Your task to perform on an android device: turn pop-ups off in chrome Image 0: 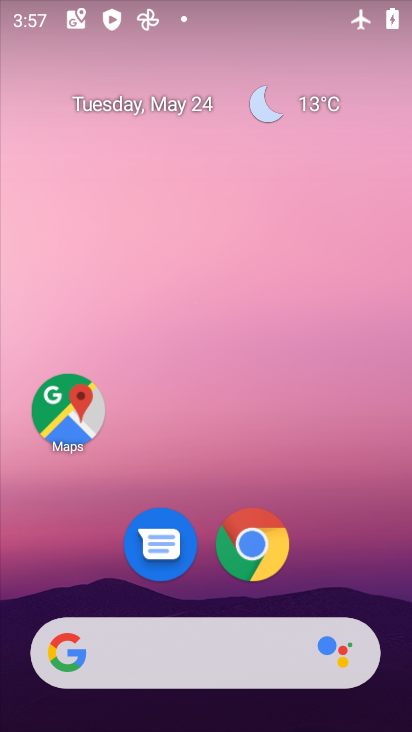
Step 0: drag from (387, 534) to (289, 59)
Your task to perform on an android device: turn pop-ups off in chrome Image 1: 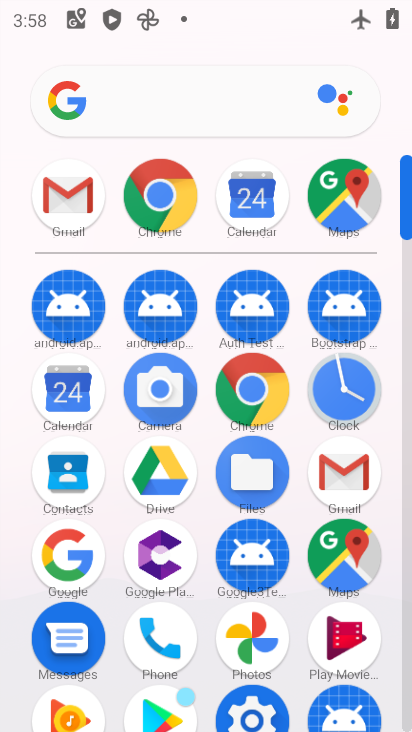
Step 1: click (162, 197)
Your task to perform on an android device: turn pop-ups off in chrome Image 2: 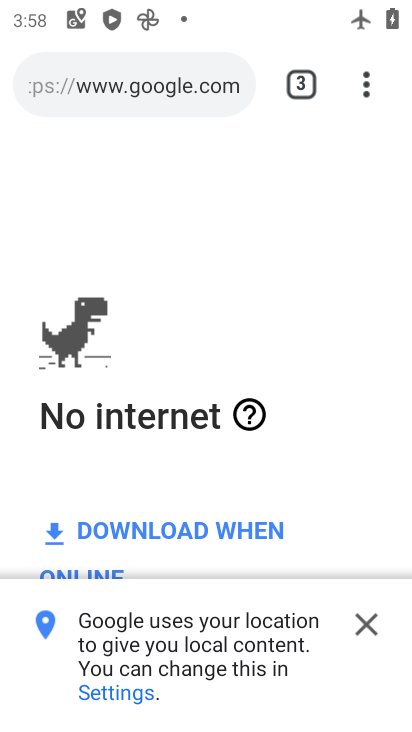
Step 2: drag from (374, 103) to (67, 598)
Your task to perform on an android device: turn pop-ups off in chrome Image 3: 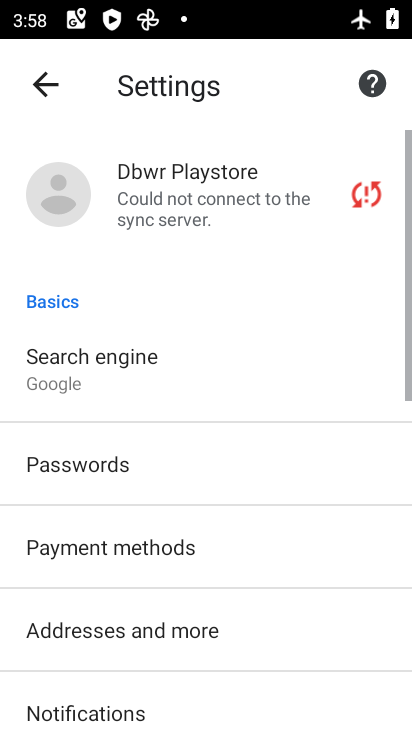
Step 3: drag from (214, 597) to (214, 216)
Your task to perform on an android device: turn pop-ups off in chrome Image 4: 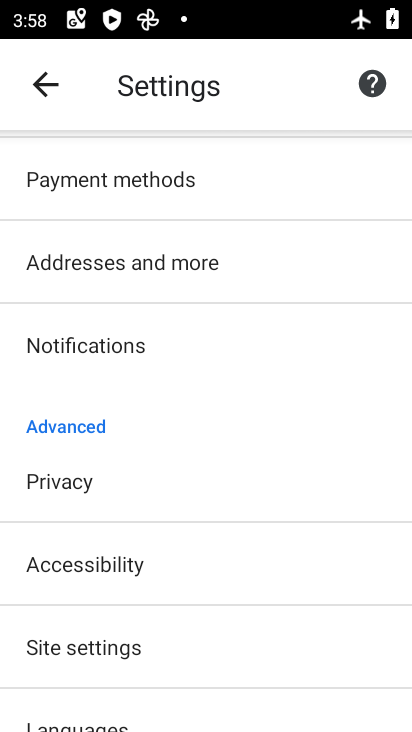
Step 4: drag from (152, 652) to (149, 265)
Your task to perform on an android device: turn pop-ups off in chrome Image 5: 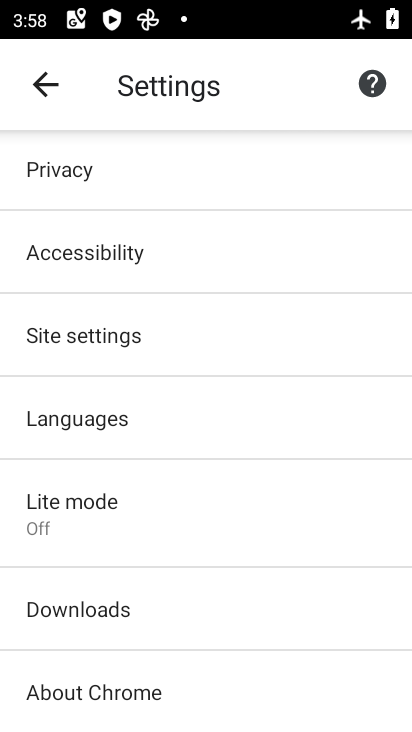
Step 5: click (132, 338)
Your task to perform on an android device: turn pop-ups off in chrome Image 6: 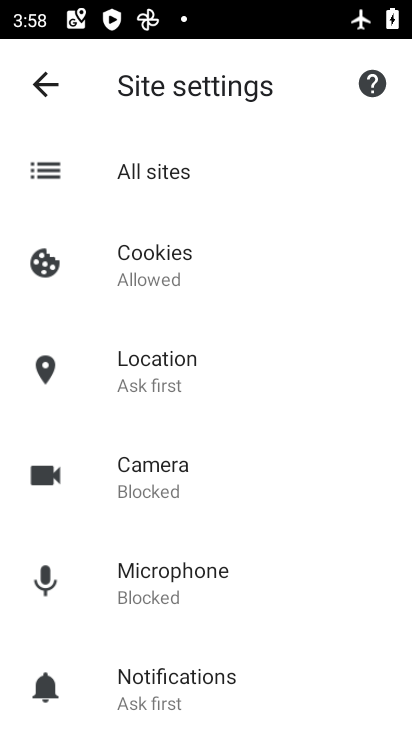
Step 6: drag from (218, 631) to (273, 169)
Your task to perform on an android device: turn pop-ups off in chrome Image 7: 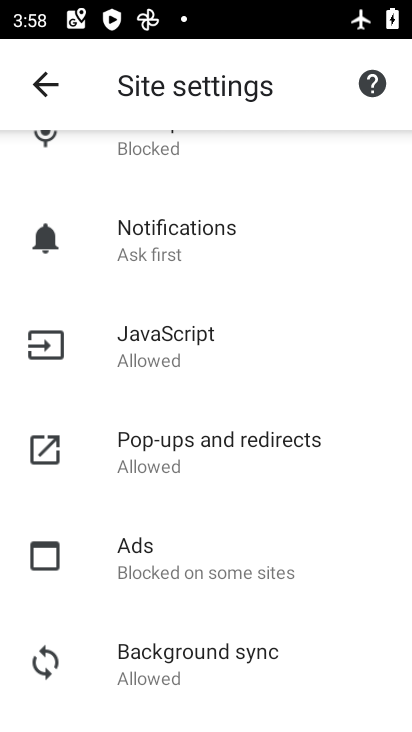
Step 7: click (167, 452)
Your task to perform on an android device: turn pop-ups off in chrome Image 8: 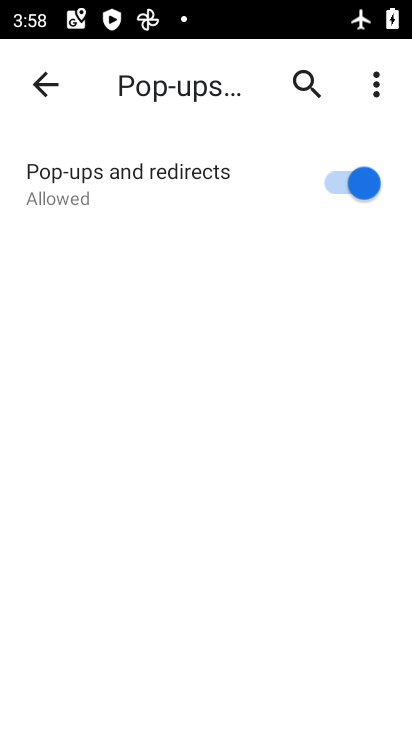
Step 8: click (343, 186)
Your task to perform on an android device: turn pop-ups off in chrome Image 9: 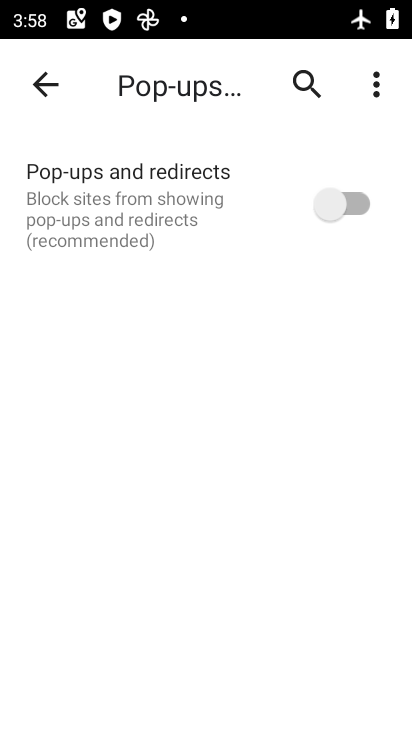
Step 9: task complete